Your task to perform on an android device: Open Google Maps and go to "Timeline" Image 0: 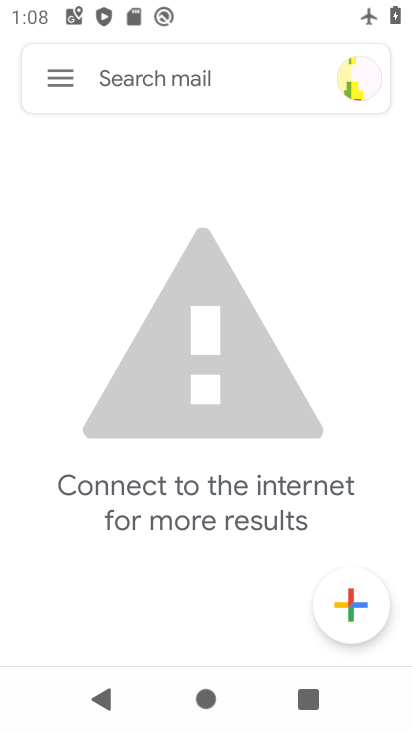
Step 0: press home button
Your task to perform on an android device: Open Google Maps and go to "Timeline" Image 1: 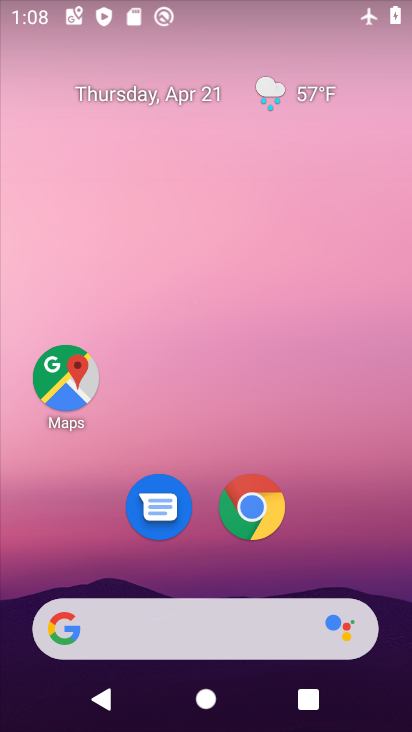
Step 1: click (67, 381)
Your task to perform on an android device: Open Google Maps and go to "Timeline" Image 2: 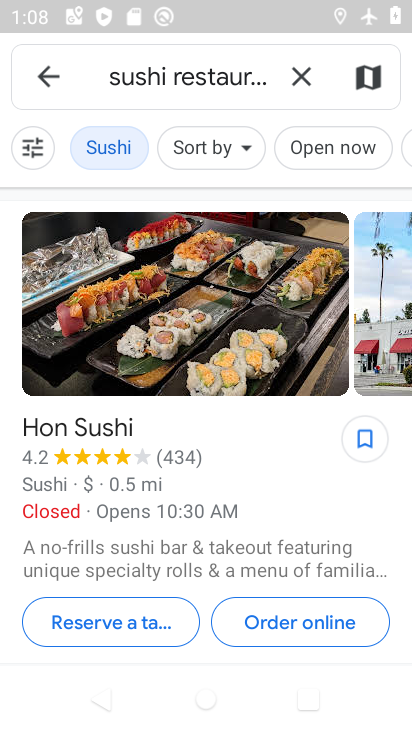
Step 2: click (303, 74)
Your task to perform on an android device: Open Google Maps and go to "Timeline" Image 3: 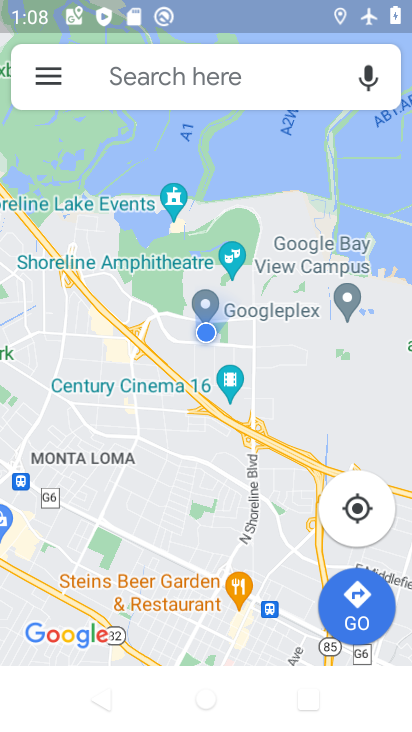
Step 3: click (51, 79)
Your task to perform on an android device: Open Google Maps and go to "Timeline" Image 4: 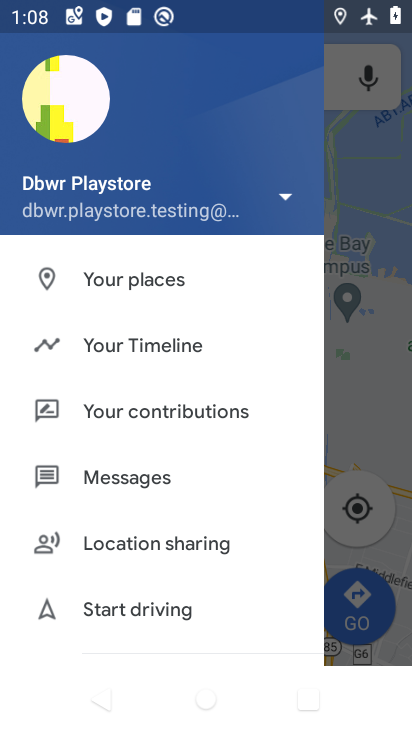
Step 4: click (152, 348)
Your task to perform on an android device: Open Google Maps and go to "Timeline" Image 5: 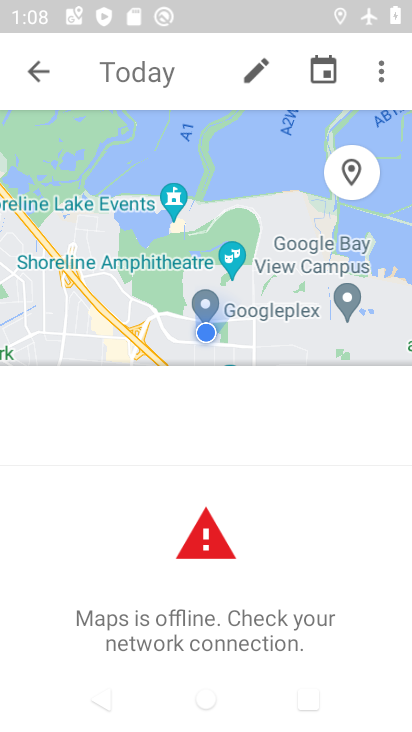
Step 5: task complete